Your task to perform on an android device: What's the weather? Image 0: 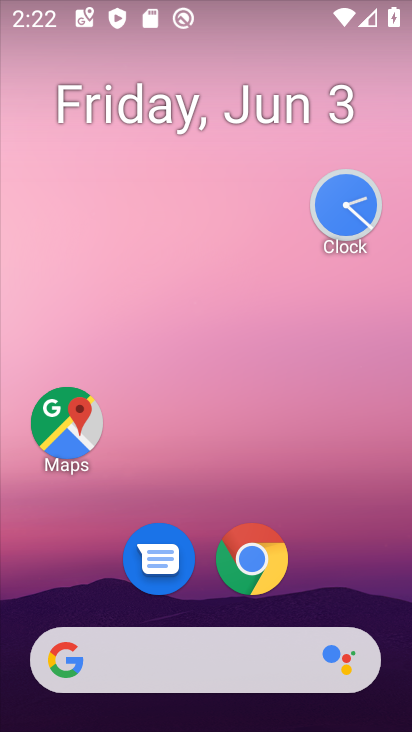
Step 0: drag from (9, 290) to (399, 414)
Your task to perform on an android device: What's the weather? Image 1: 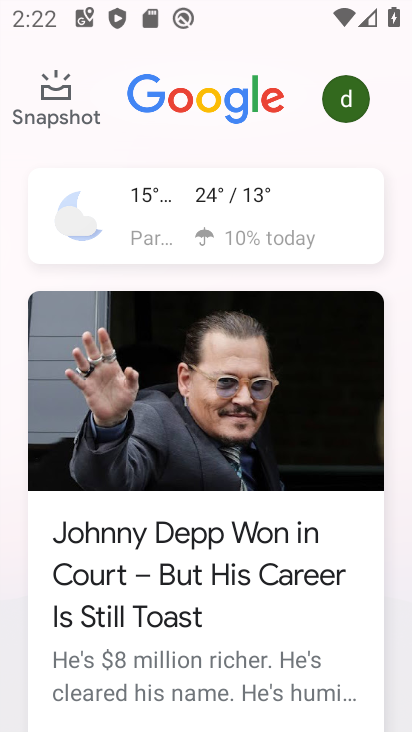
Step 1: click (176, 218)
Your task to perform on an android device: What's the weather? Image 2: 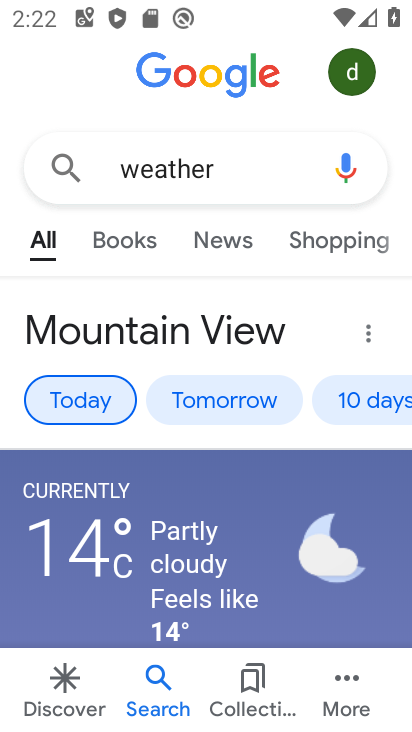
Step 2: task complete